Your task to perform on an android device: change the clock style Image 0: 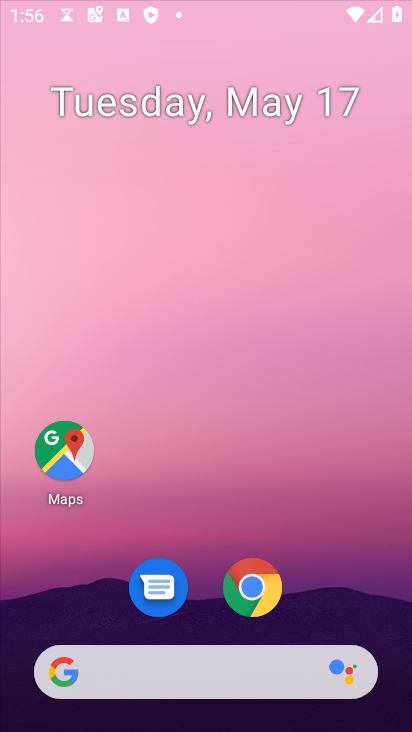
Step 0: drag from (198, 631) to (260, 140)
Your task to perform on an android device: change the clock style Image 1: 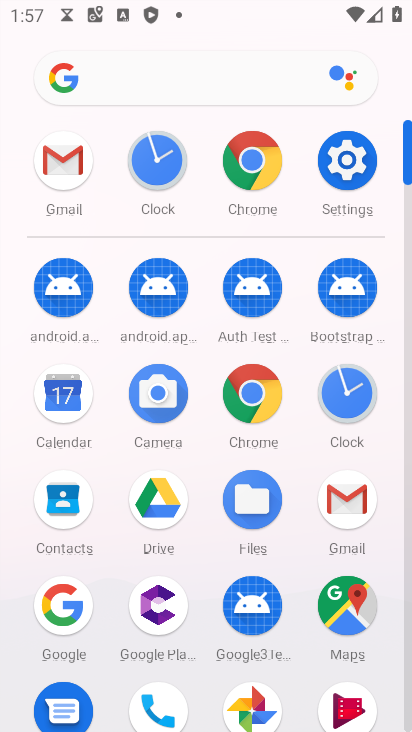
Step 1: click (340, 399)
Your task to perform on an android device: change the clock style Image 2: 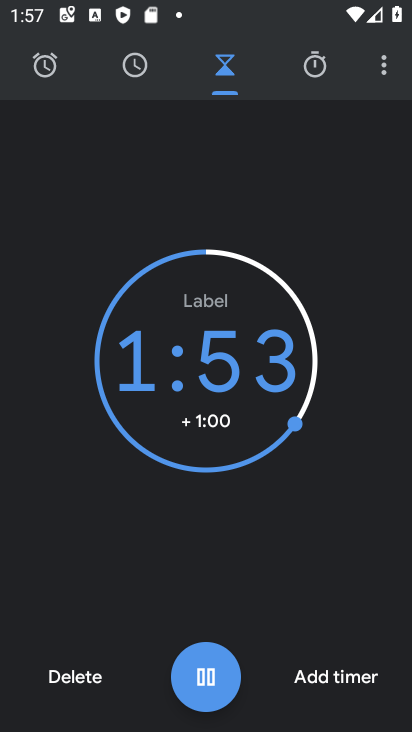
Step 2: click (395, 74)
Your task to perform on an android device: change the clock style Image 3: 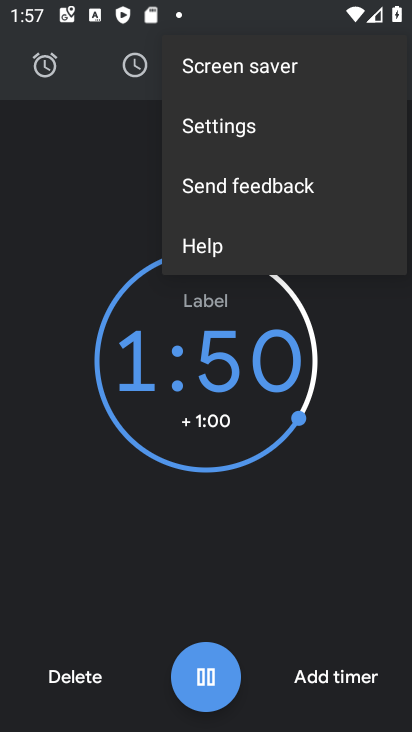
Step 3: click (272, 129)
Your task to perform on an android device: change the clock style Image 4: 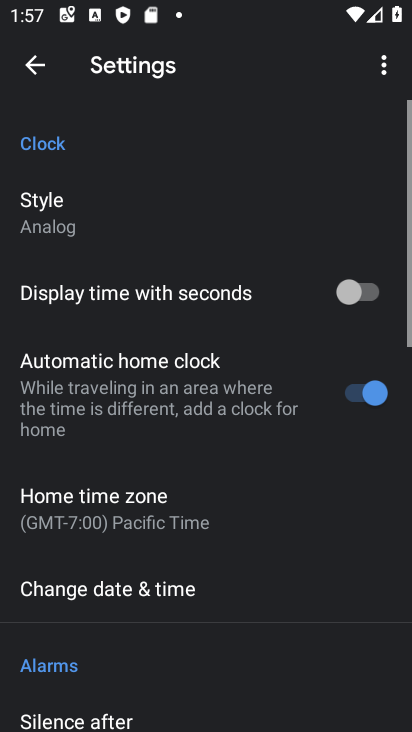
Step 4: click (23, 244)
Your task to perform on an android device: change the clock style Image 5: 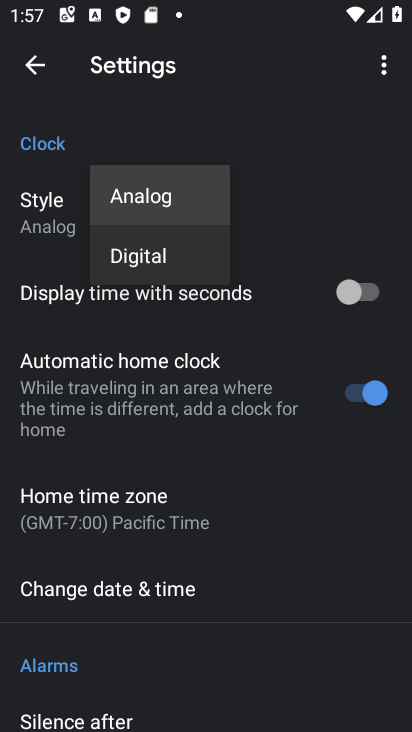
Step 5: click (155, 254)
Your task to perform on an android device: change the clock style Image 6: 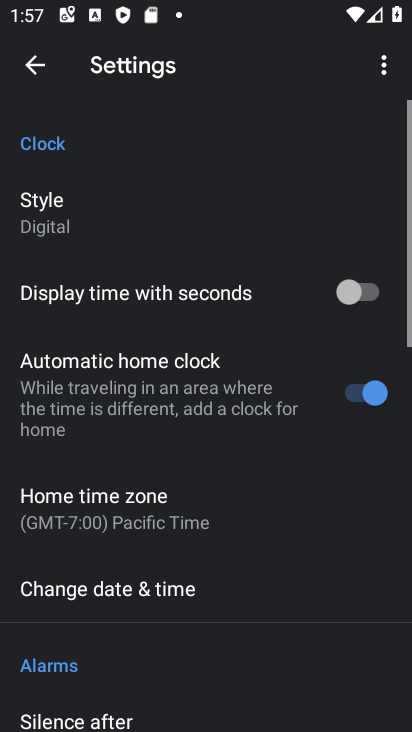
Step 6: task complete